Your task to perform on an android device: change the clock display to analog Image 0: 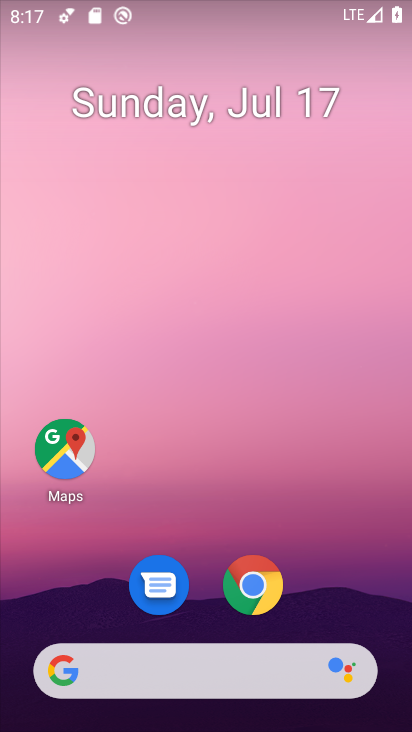
Step 0: drag from (342, 542) to (201, 0)
Your task to perform on an android device: change the clock display to analog Image 1: 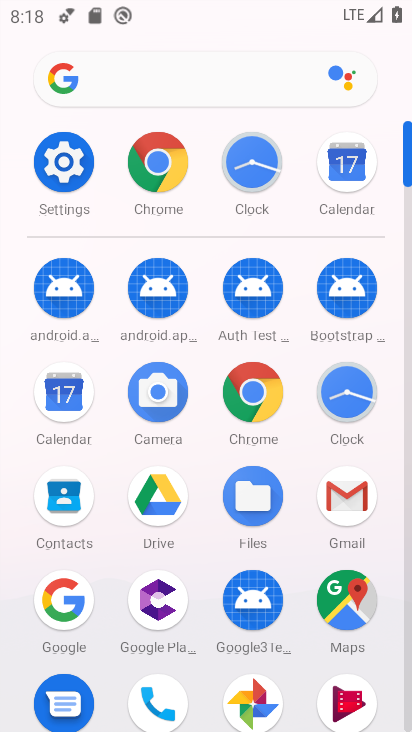
Step 1: click (258, 159)
Your task to perform on an android device: change the clock display to analog Image 2: 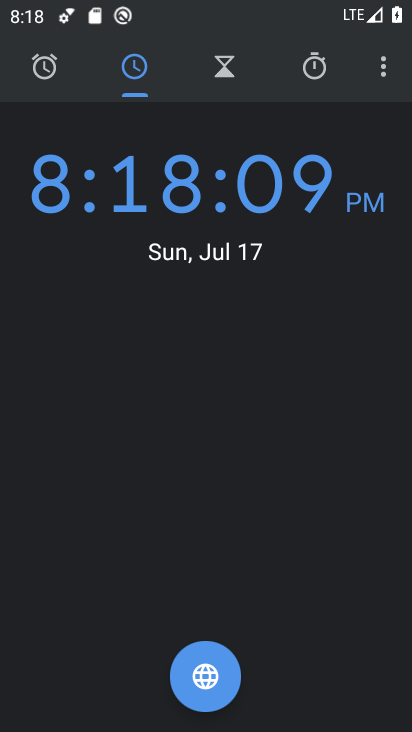
Step 2: click (382, 70)
Your task to perform on an android device: change the clock display to analog Image 3: 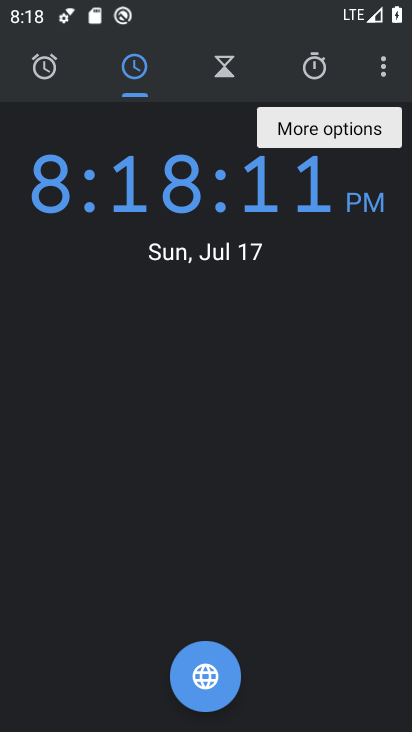
Step 3: click (380, 76)
Your task to perform on an android device: change the clock display to analog Image 4: 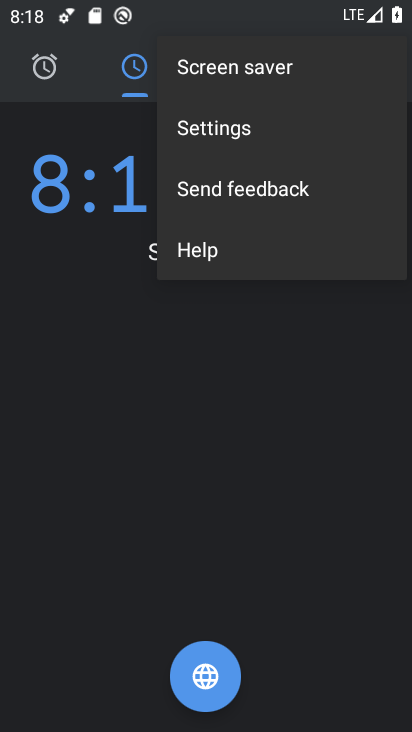
Step 4: click (275, 128)
Your task to perform on an android device: change the clock display to analog Image 5: 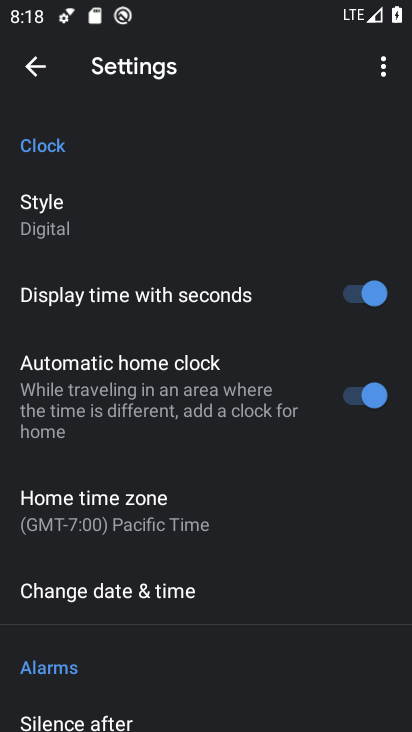
Step 5: click (61, 232)
Your task to perform on an android device: change the clock display to analog Image 6: 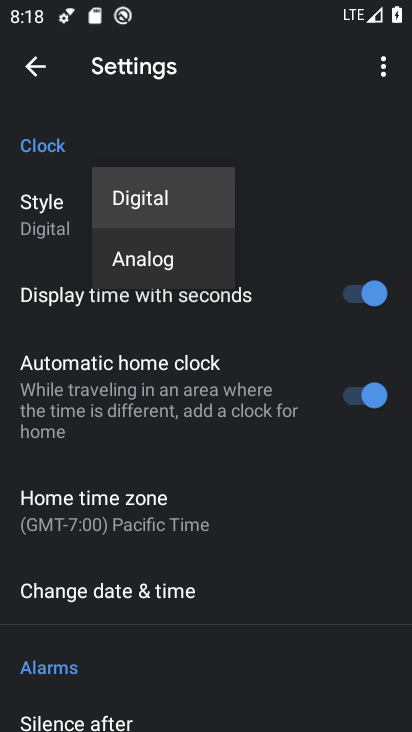
Step 6: click (131, 243)
Your task to perform on an android device: change the clock display to analog Image 7: 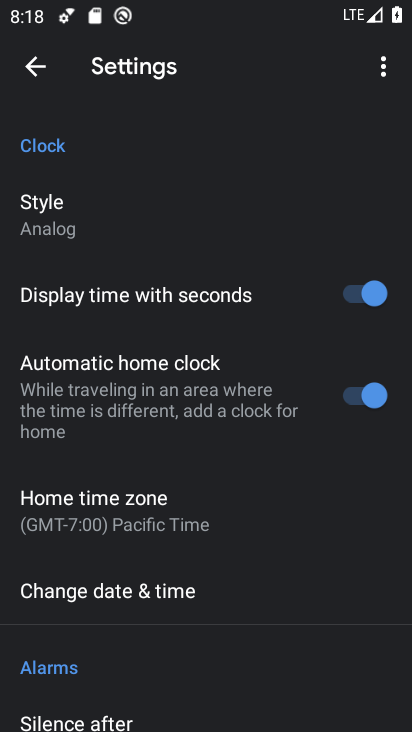
Step 7: click (31, 50)
Your task to perform on an android device: change the clock display to analog Image 8: 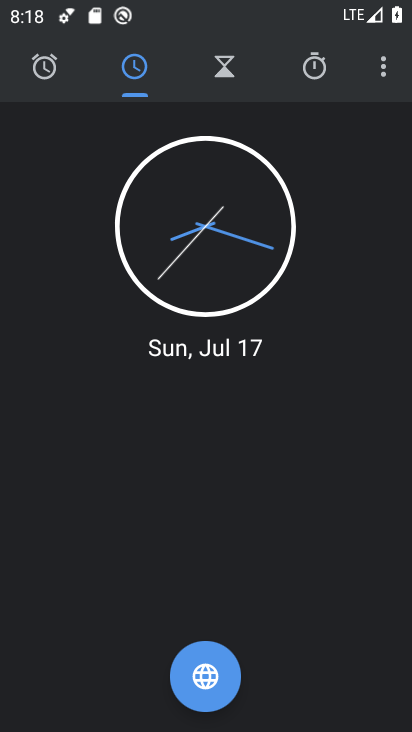
Step 8: task complete